Your task to perform on an android device: turn on wifi Image 0: 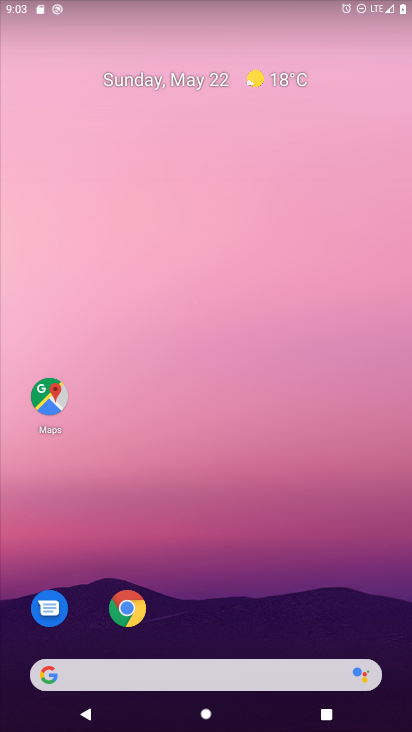
Step 0: drag from (234, 678) to (236, 178)
Your task to perform on an android device: turn on wifi Image 1: 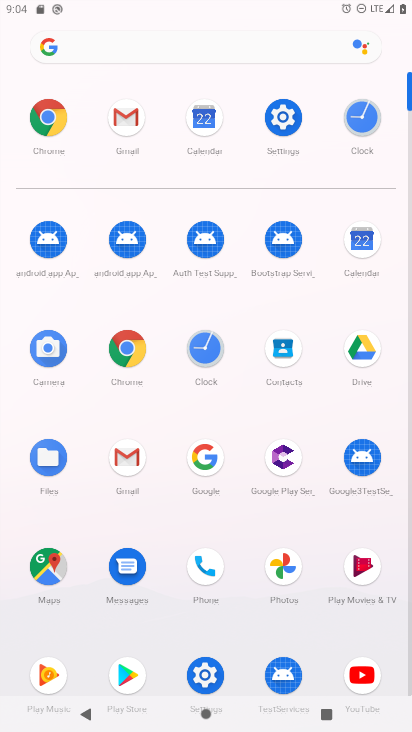
Step 1: click (273, 114)
Your task to perform on an android device: turn on wifi Image 2: 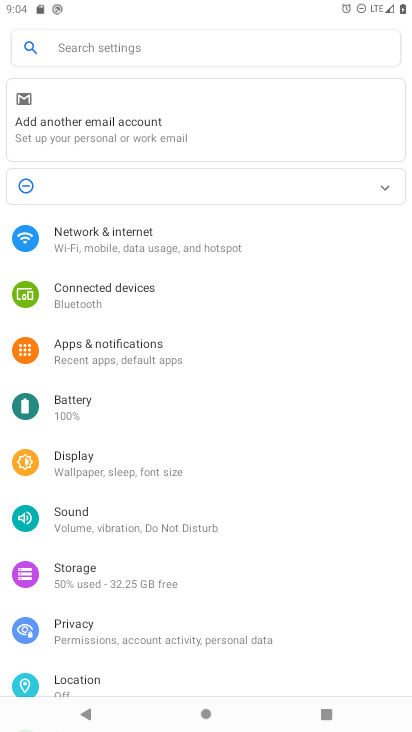
Step 2: click (103, 248)
Your task to perform on an android device: turn on wifi Image 3: 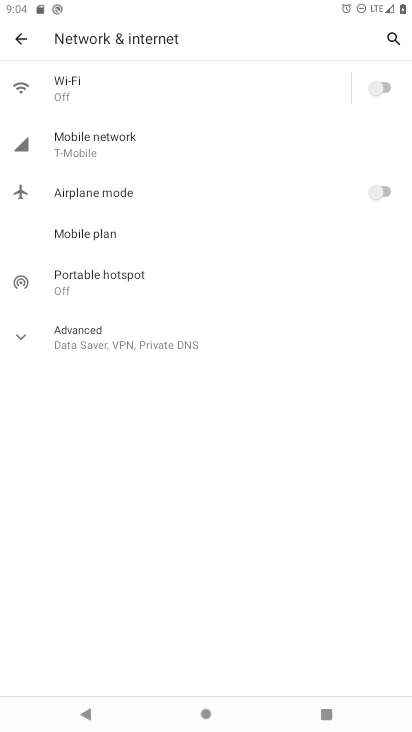
Step 3: click (381, 88)
Your task to perform on an android device: turn on wifi Image 4: 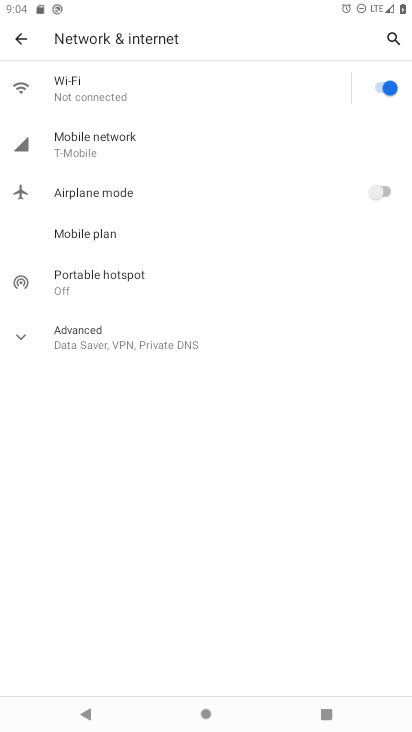
Step 4: task complete